Your task to perform on an android device: see tabs open on other devices in the chrome app Image 0: 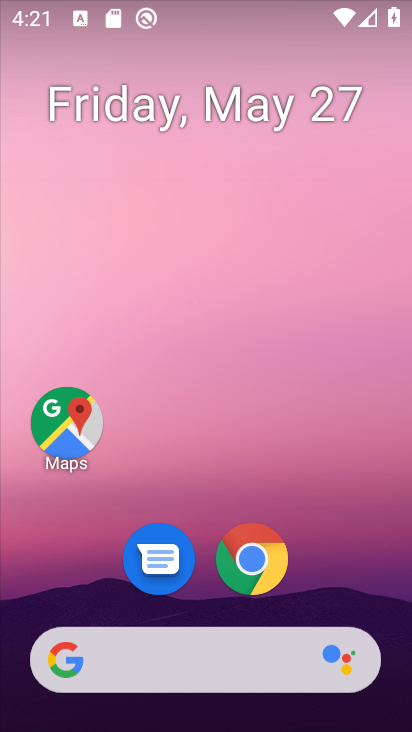
Step 0: click (244, 555)
Your task to perform on an android device: see tabs open on other devices in the chrome app Image 1: 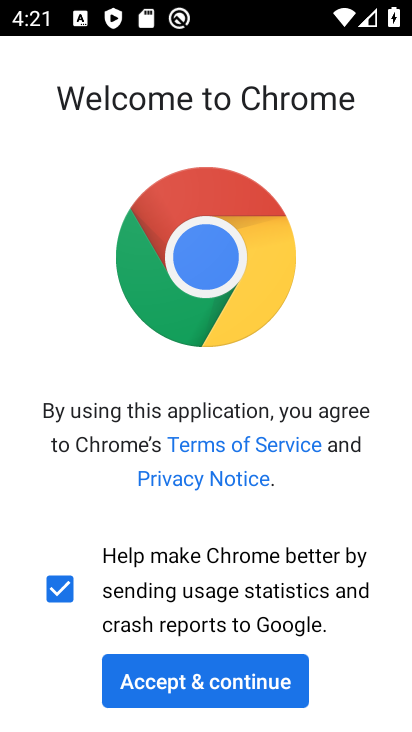
Step 1: click (231, 680)
Your task to perform on an android device: see tabs open on other devices in the chrome app Image 2: 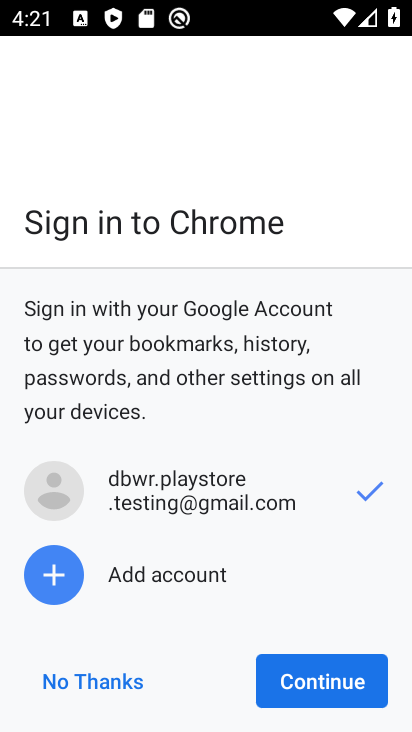
Step 2: click (319, 679)
Your task to perform on an android device: see tabs open on other devices in the chrome app Image 3: 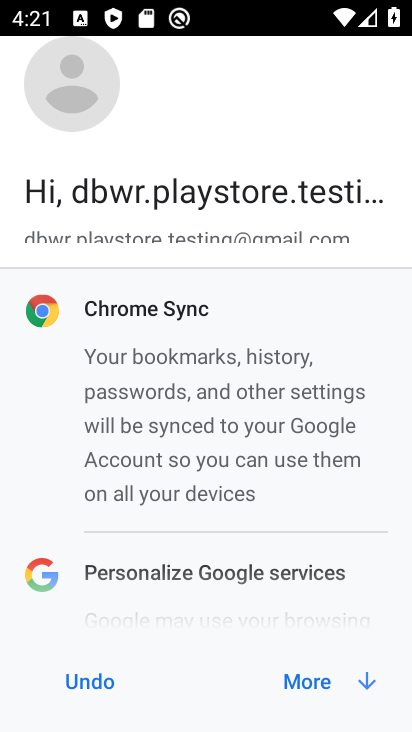
Step 3: click (369, 682)
Your task to perform on an android device: see tabs open on other devices in the chrome app Image 4: 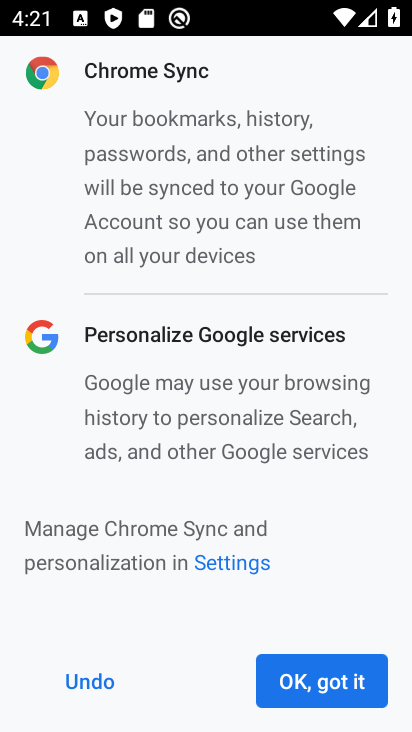
Step 4: click (363, 675)
Your task to perform on an android device: see tabs open on other devices in the chrome app Image 5: 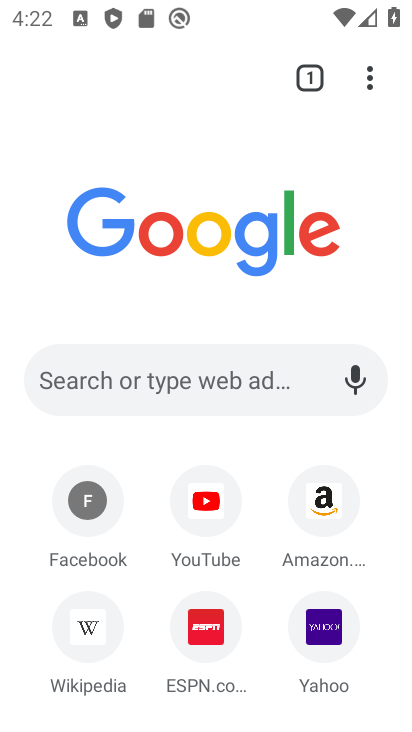
Step 5: drag from (275, 598) to (249, 325)
Your task to perform on an android device: see tabs open on other devices in the chrome app Image 6: 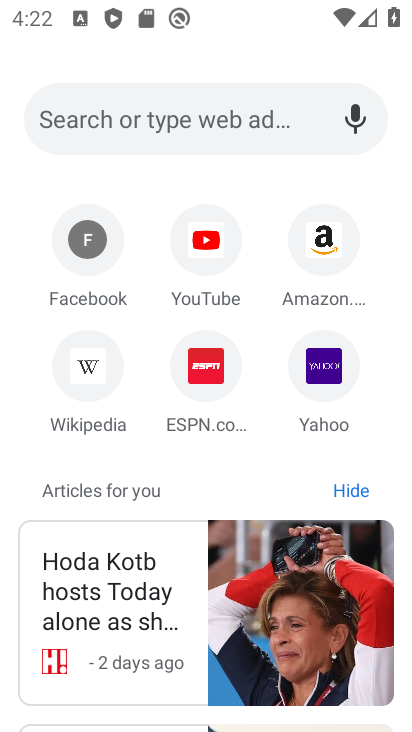
Step 6: drag from (344, 312) to (1, 262)
Your task to perform on an android device: see tabs open on other devices in the chrome app Image 7: 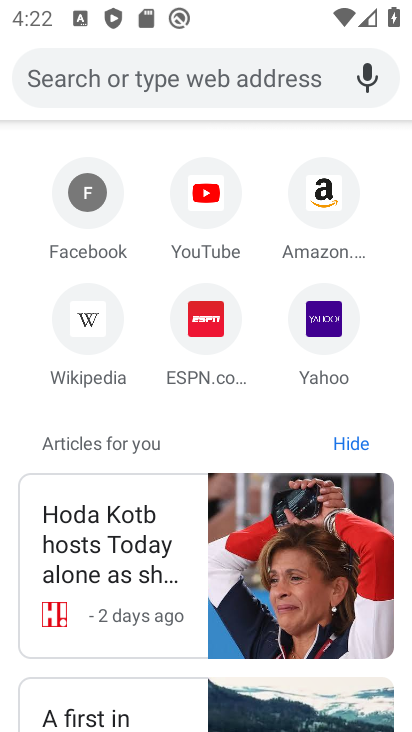
Step 7: click (151, 77)
Your task to perform on an android device: see tabs open on other devices in the chrome app Image 8: 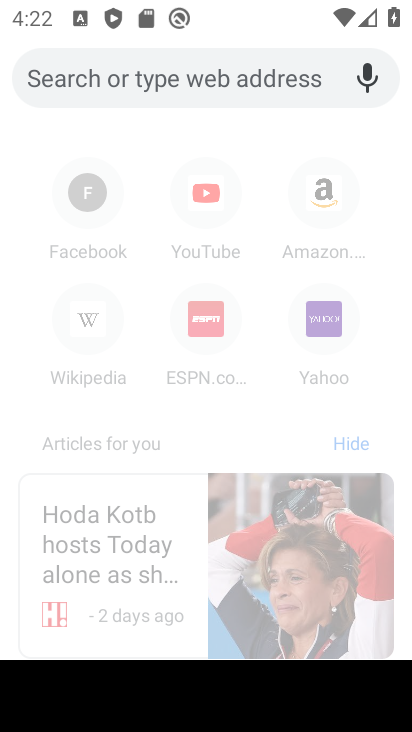
Step 8: click (325, 213)
Your task to perform on an android device: see tabs open on other devices in the chrome app Image 9: 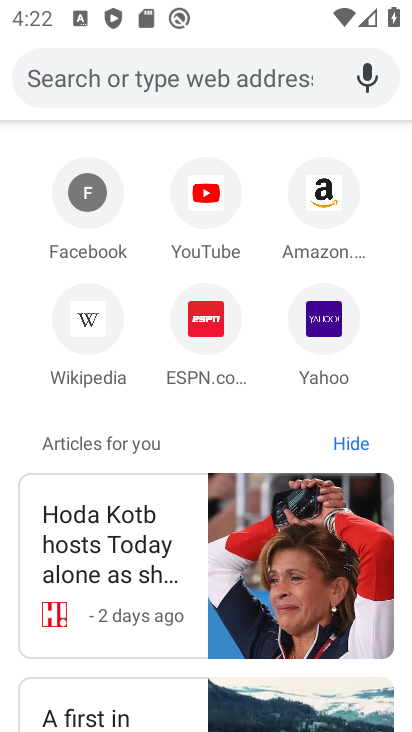
Step 9: click (325, 213)
Your task to perform on an android device: see tabs open on other devices in the chrome app Image 10: 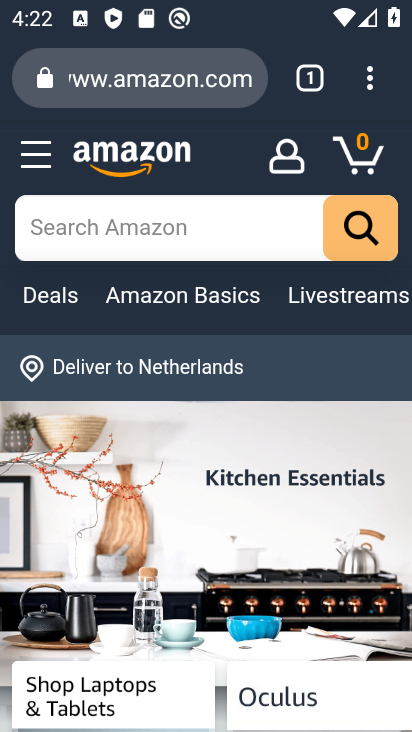
Step 10: task complete